Your task to perform on an android device: Open the stopwatch Image 0: 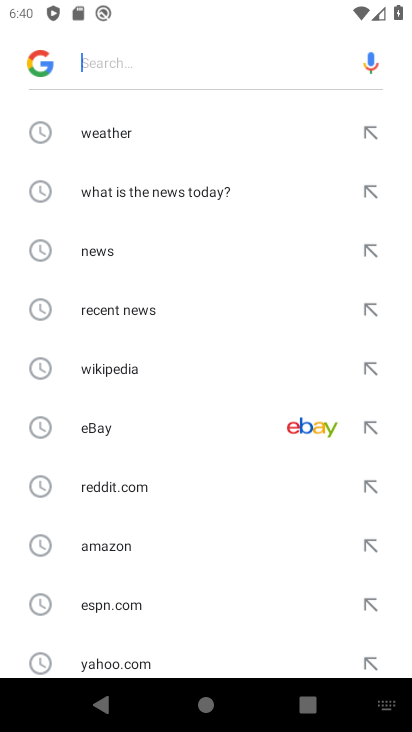
Step 0: press home button
Your task to perform on an android device: Open the stopwatch Image 1: 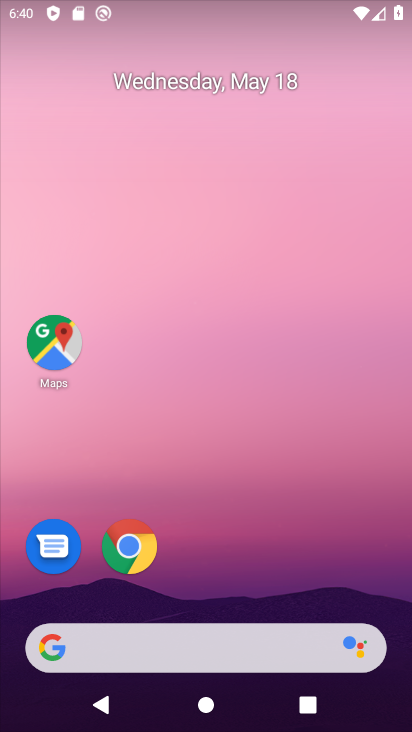
Step 1: drag from (392, 634) to (308, 6)
Your task to perform on an android device: Open the stopwatch Image 2: 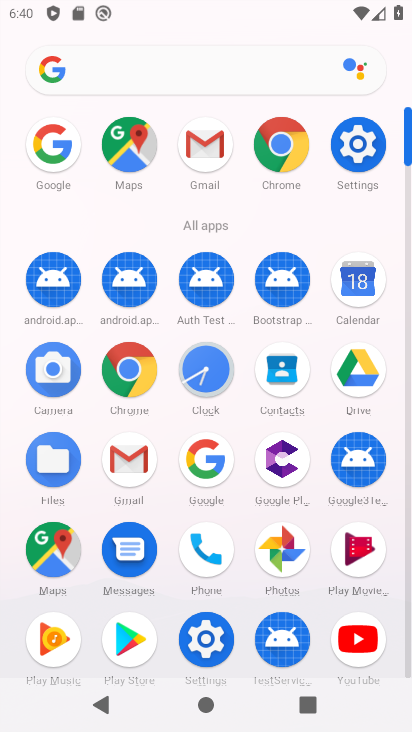
Step 2: click (211, 378)
Your task to perform on an android device: Open the stopwatch Image 3: 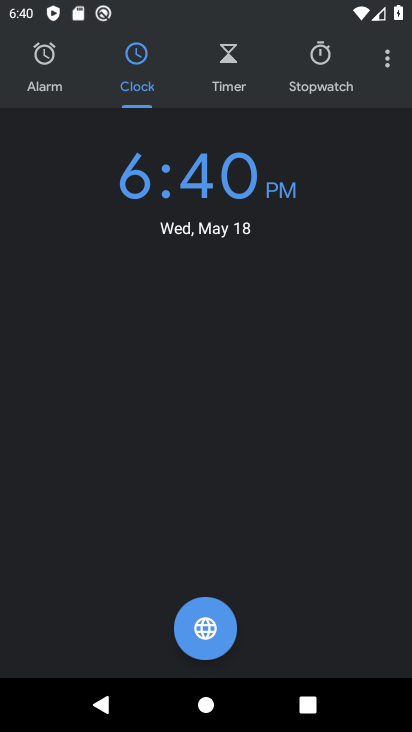
Step 3: click (320, 68)
Your task to perform on an android device: Open the stopwatch Image 4: 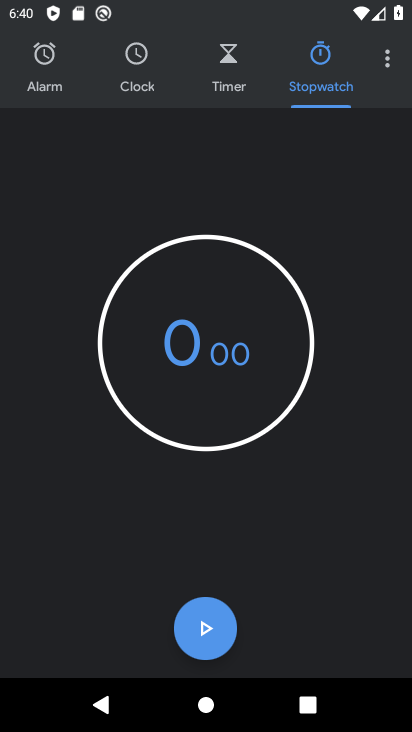
Step 4: task complete